Your task to perform on an android device: search for starred emails in the gmail app Image 0: 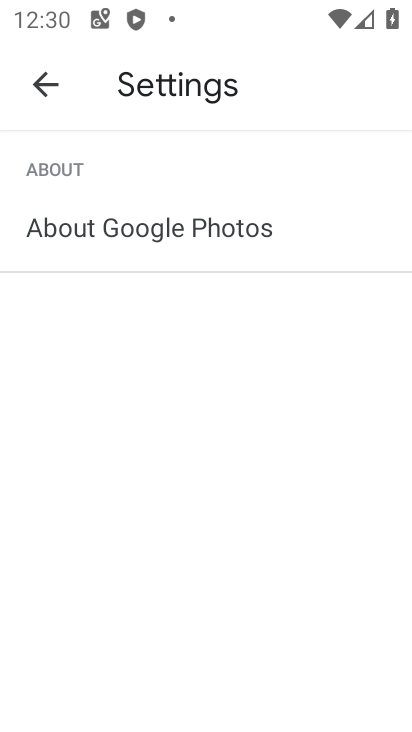
Step 0: press home button
Your task to perform on an android device: search for starred emails in the gmail app Image 1: 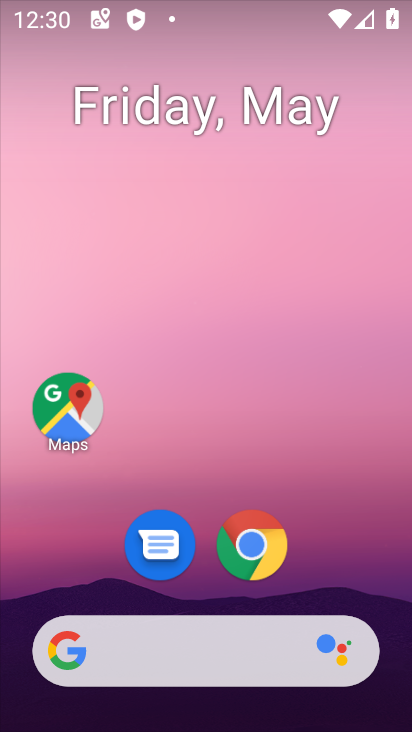
Step 1: drag from (344, 560) to (311, 211)
Your task to perform on an android device: search for starred emails in the gmail app Image 2: 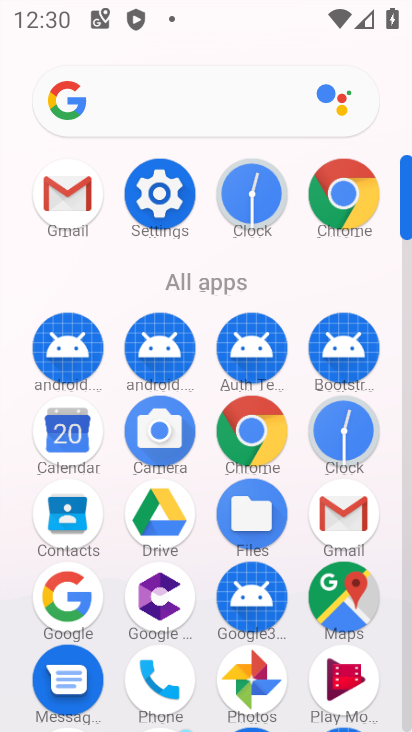
Step 2: click (52, 204)
Your task to perform on an android device: search for starred emails in the gmail app Image 3: 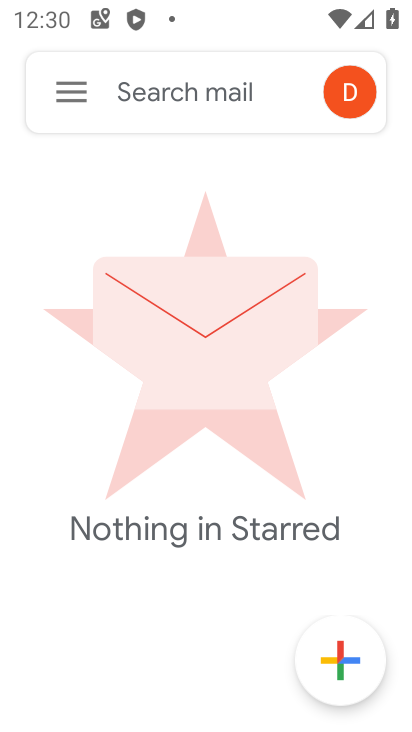
Step 3: click (88, 81)
Your task to perform on an android device: search for starred emails in the gmail app Image 4: 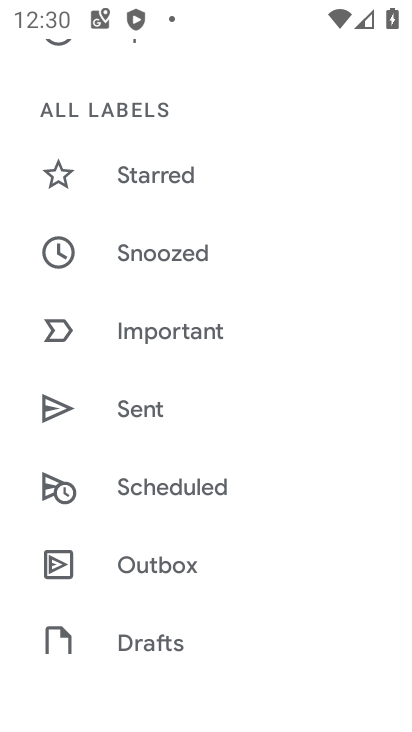
Step 4: click (131, 174)
Your task to perform on an android device: search for starred emails in the gmail app Image 5: 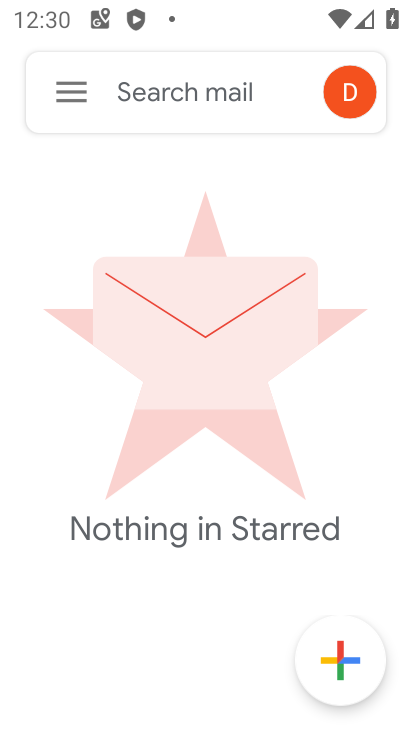
Step 5: task complete